Your task to perform on an android device: Go to Amazon Image 0: 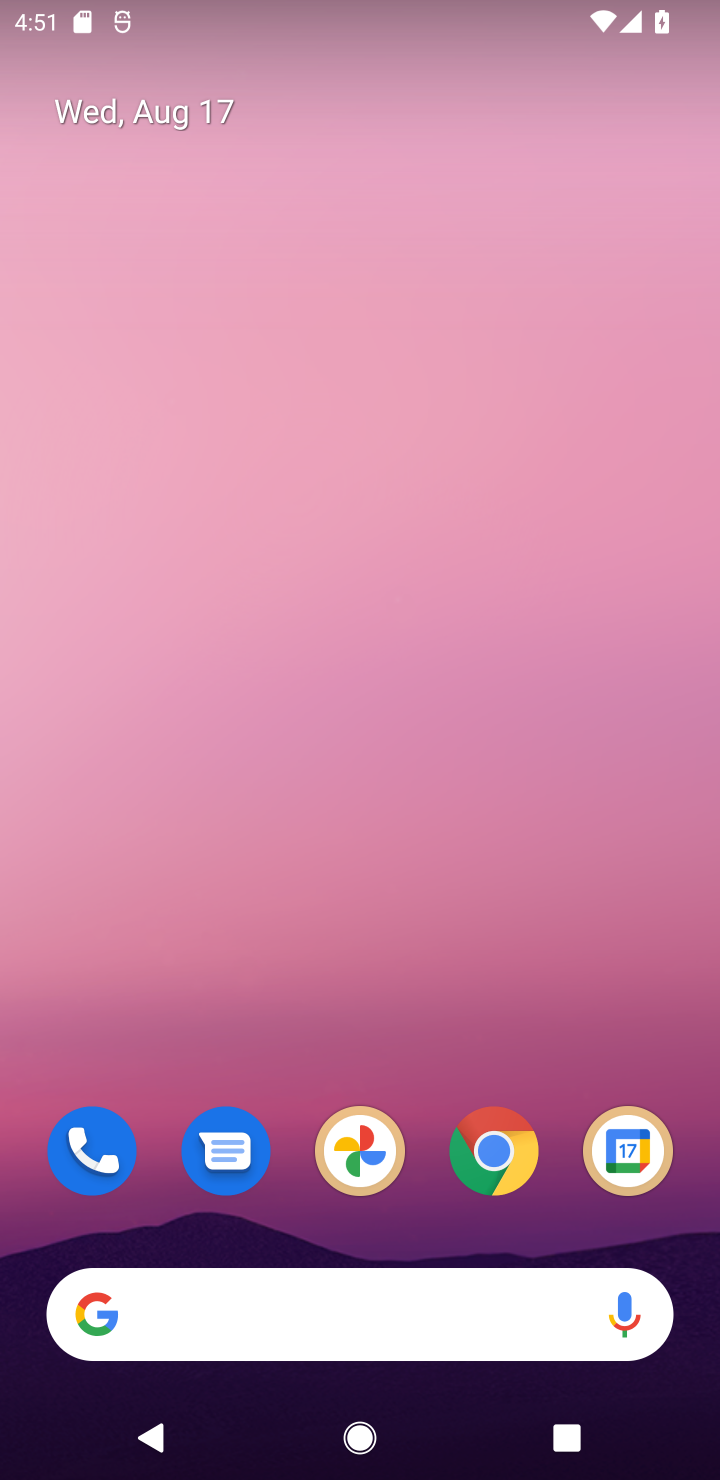
Step 0: drag from (418, 1230) to (436, 364)
Your task to perform on an android device: Go to Amazon Image 1: 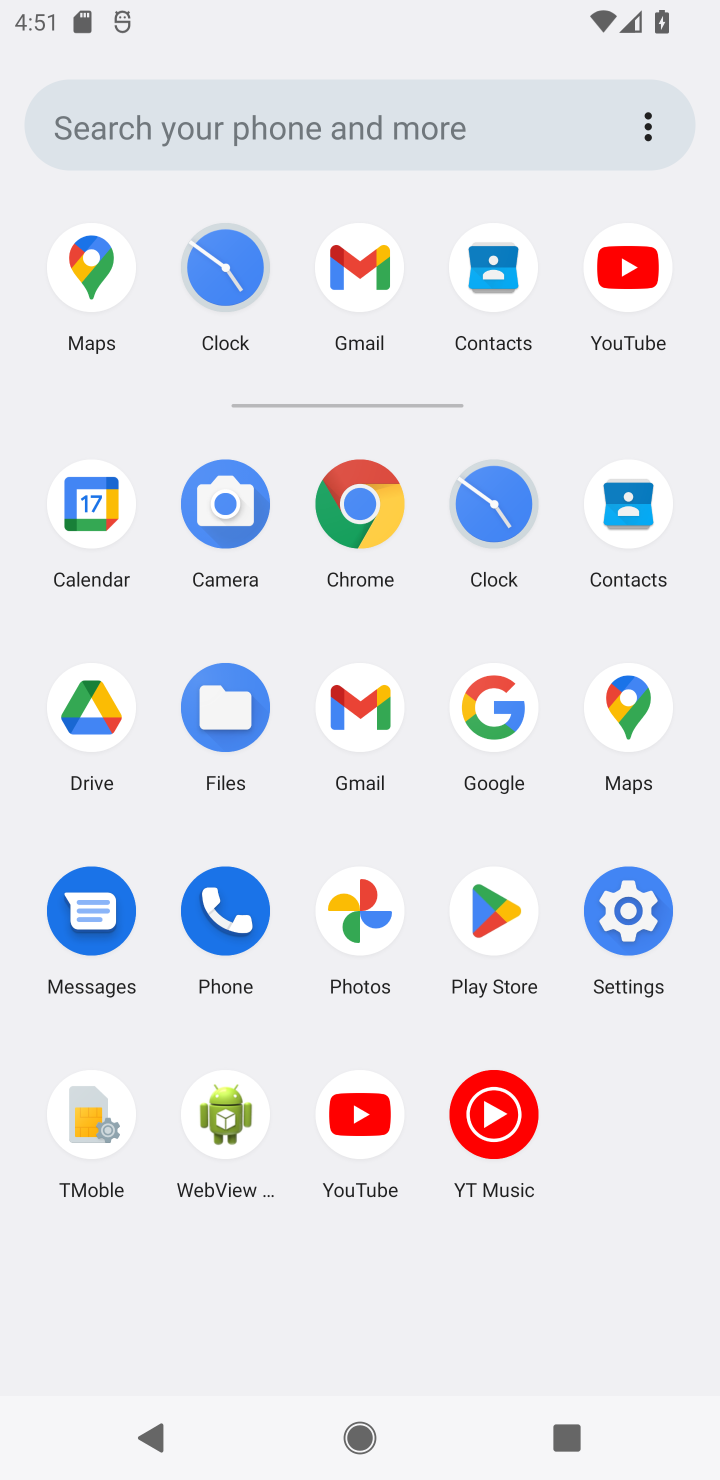
Step 1: click (376, 544)
Your task to perform on an android device: Go to Amazon Image 2: 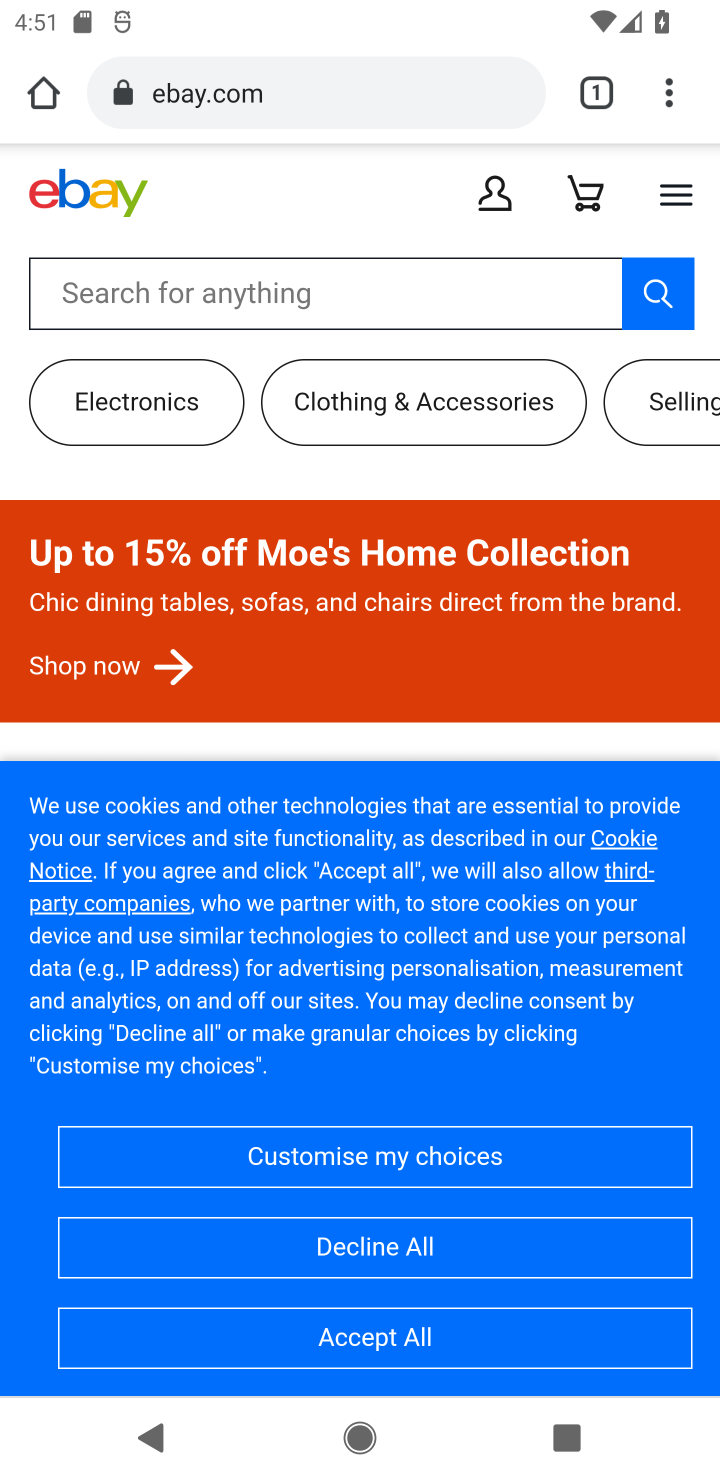
Step 2: click (329, 114)
Your task to perform on an android device: Go to Amazon Image 3: 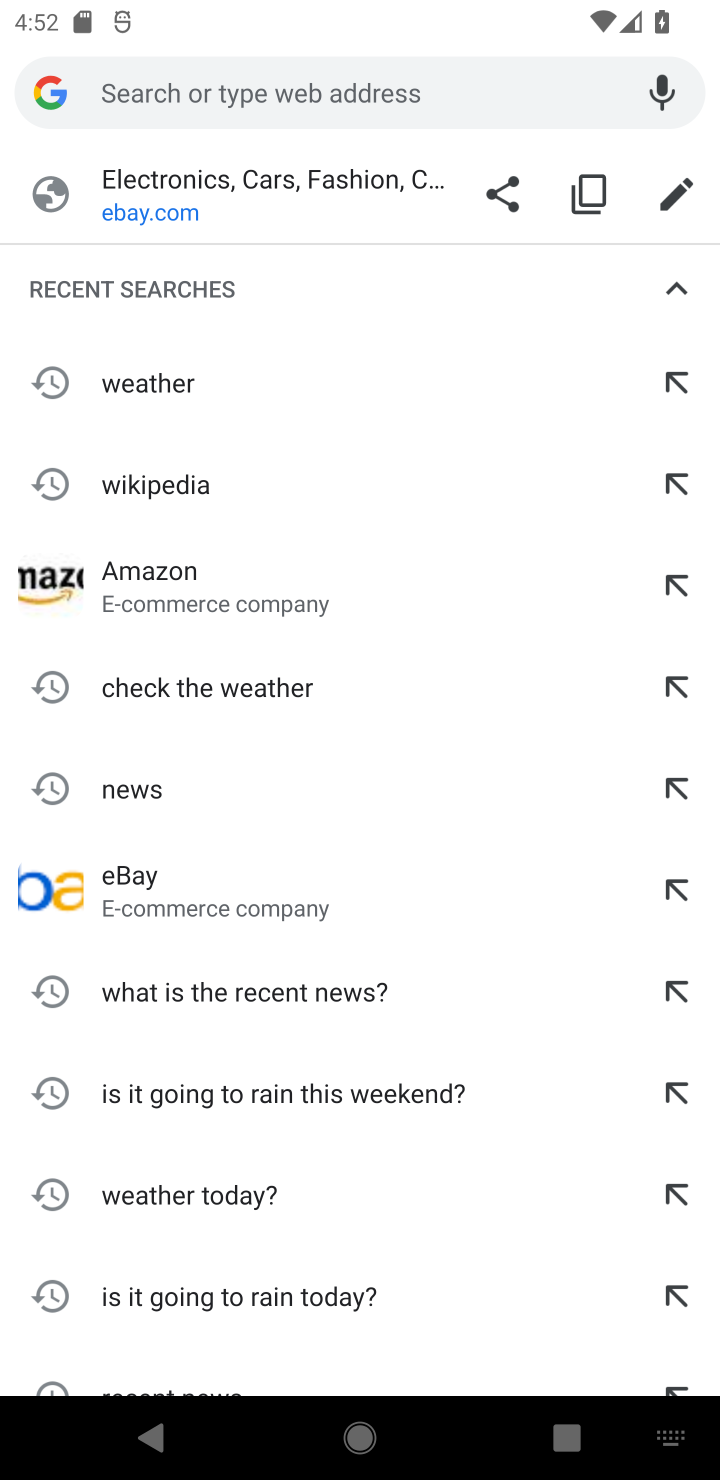
Step 3: click (201, 586)
Your task to perform on an android device: Go to Amazon Image 4: 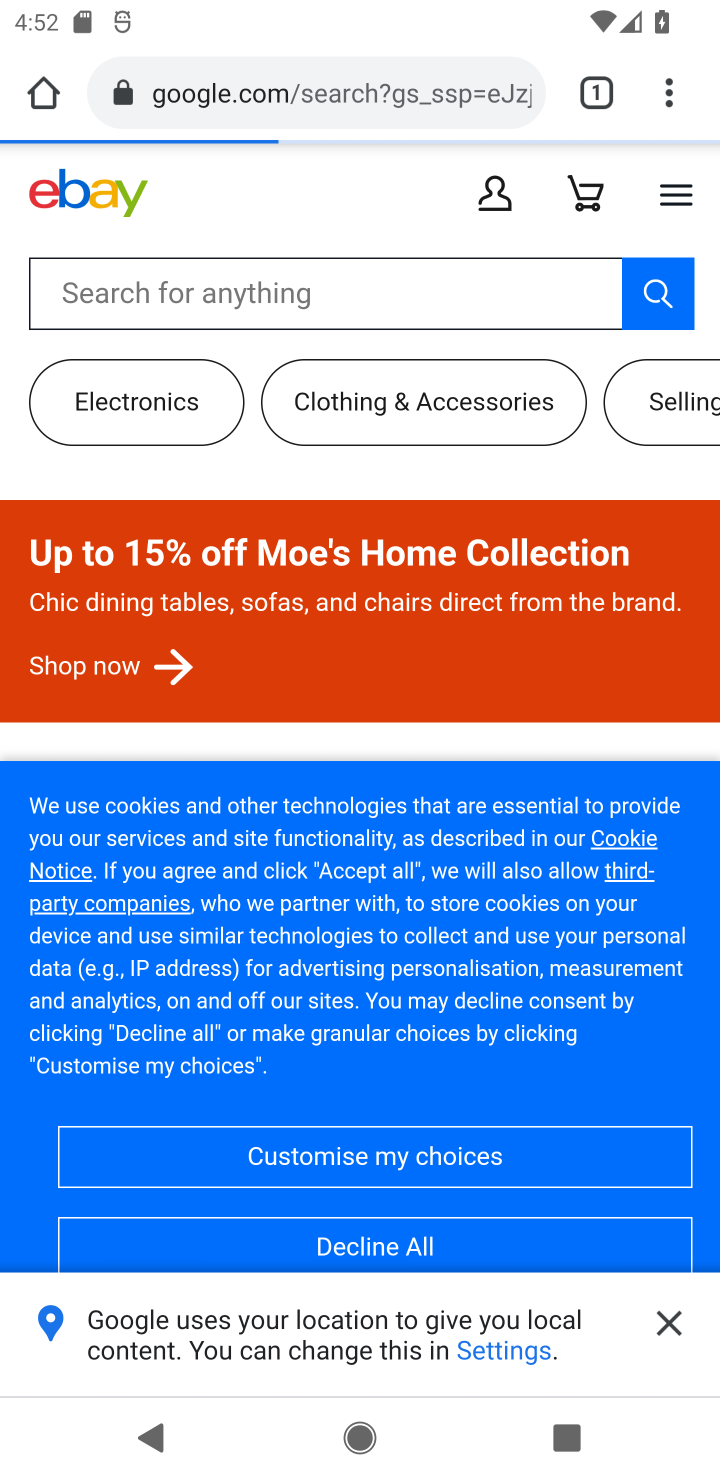
Step 4: task complete